Your task to perform on an android device: check android version Image 0: 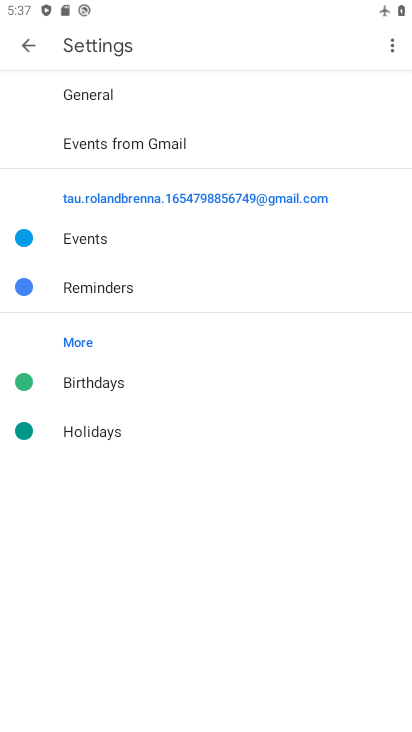
Step 0: press home button
Your task to perform on an android device: check android version Image 1: 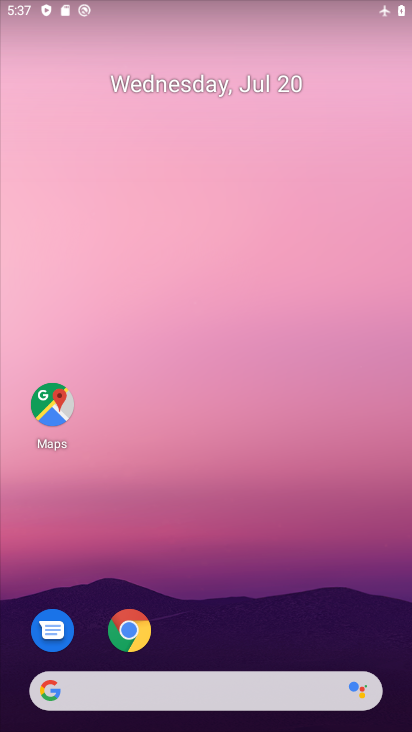
Step 1: drag from (319, 553) to (407, 728)
Your task to perform on an android device: check android version Image 2: 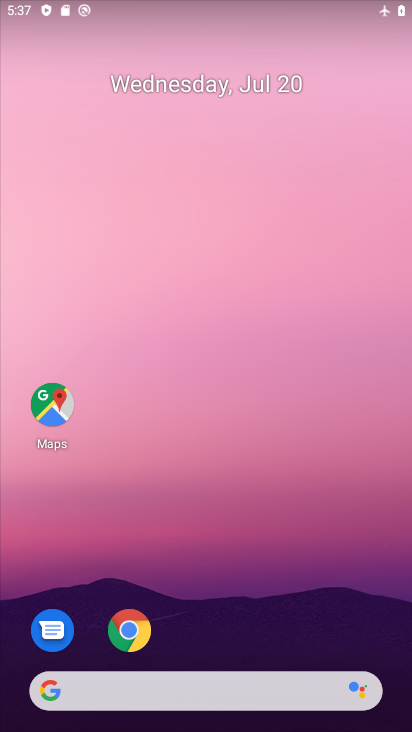
Step 2: drag from (233, 669) to (191, 34)
Your task to perform on an android device: check android version Image 3: 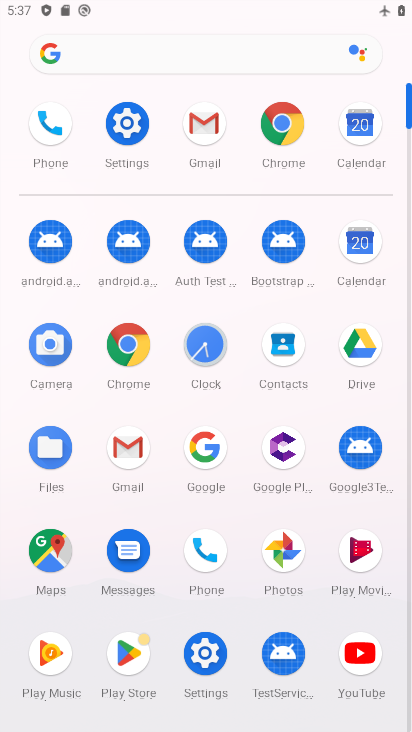
Step 3: click (123, 126)
Your task to perform on an android device: check android version Image 4: 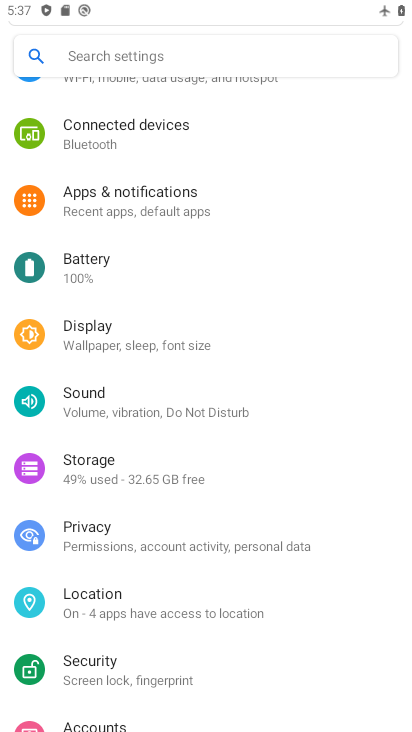
Step 4: drag from (240, 703) to (297, 39)
Your task to perform on an android device: check android version Image 5: 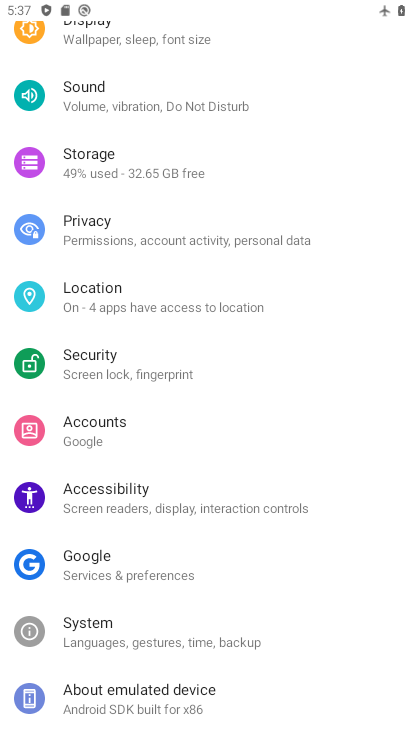
Step 5: click (204, 702)
Your task to perform on an android device: check android version Image 6: 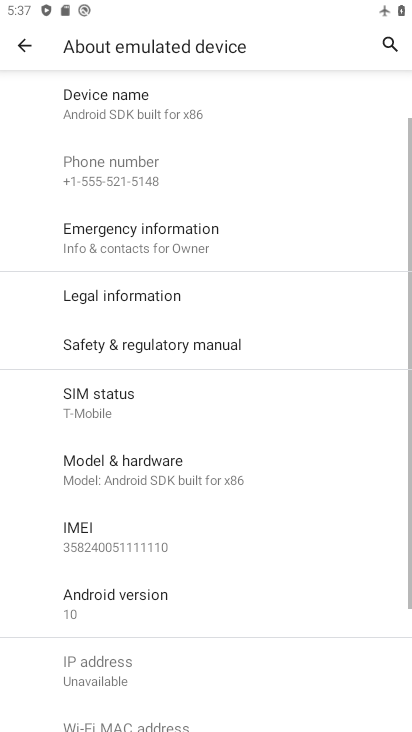
Step 6: click (173, 604)
Your task to perform on an android device: check android version Image 7: 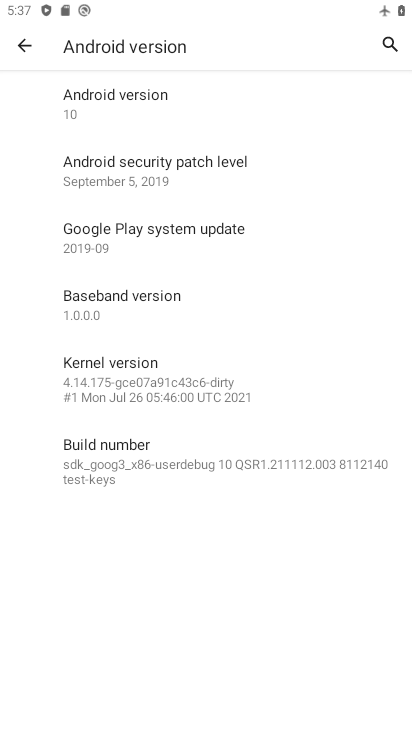
Step 7: task complete